Your task to perform on an android device: empty trash in google photos Image 0: 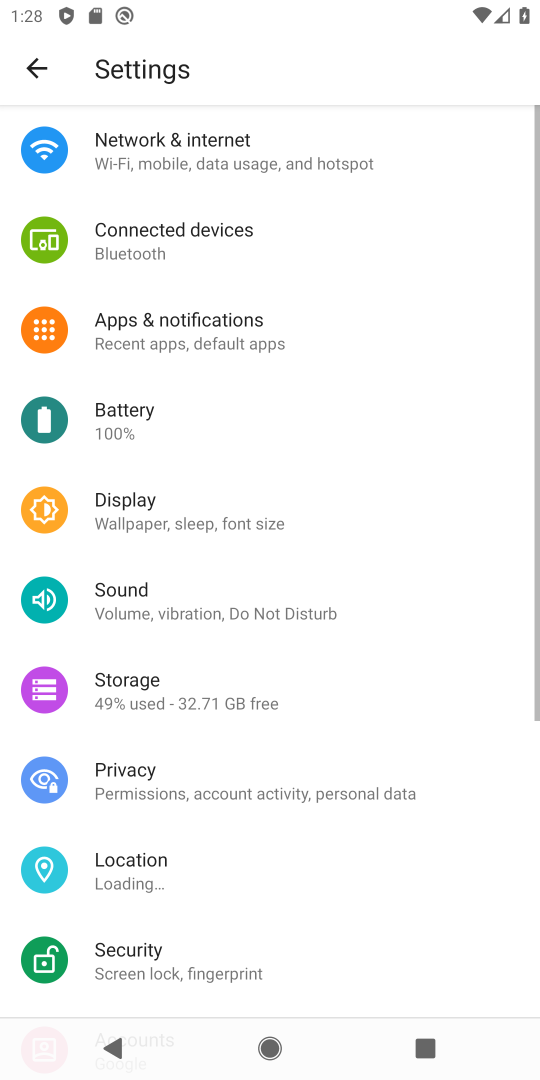
Step 0: press home button
Your task to perform on an android device: empty trash in google photos Image 1: 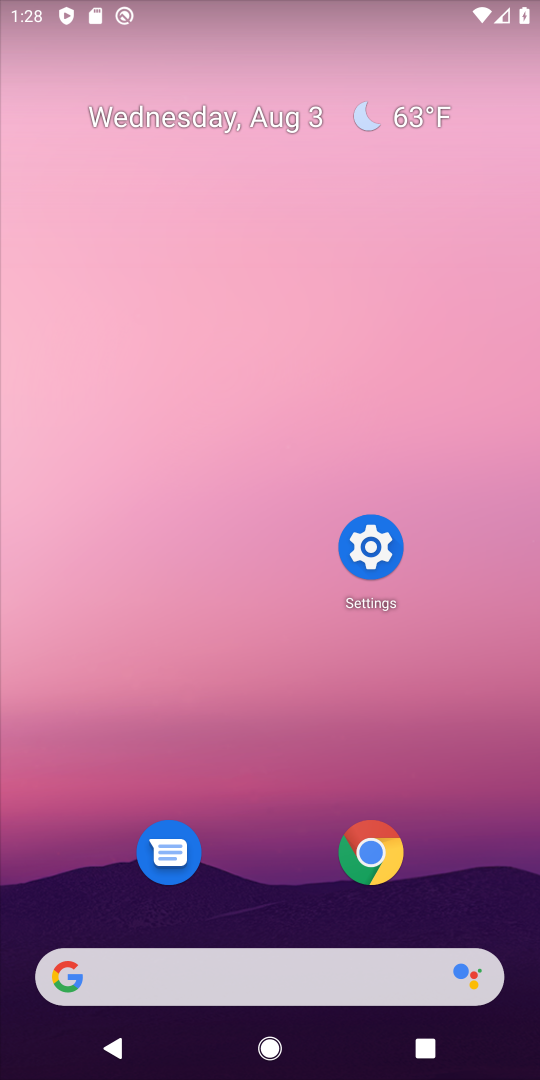
Step 1: drag from (257, 951) to (428, 82)
Your task to perform on an android device: empty trash in google photos Image 2: 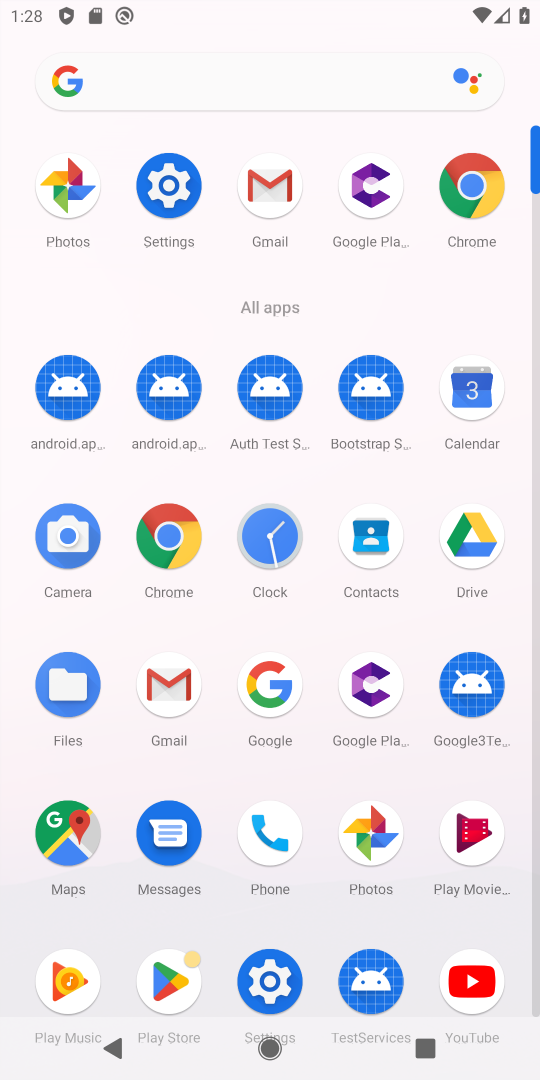
Step 2: click (377, 837)
Your task to perform on an android device: empty trash in google photos Image 3: 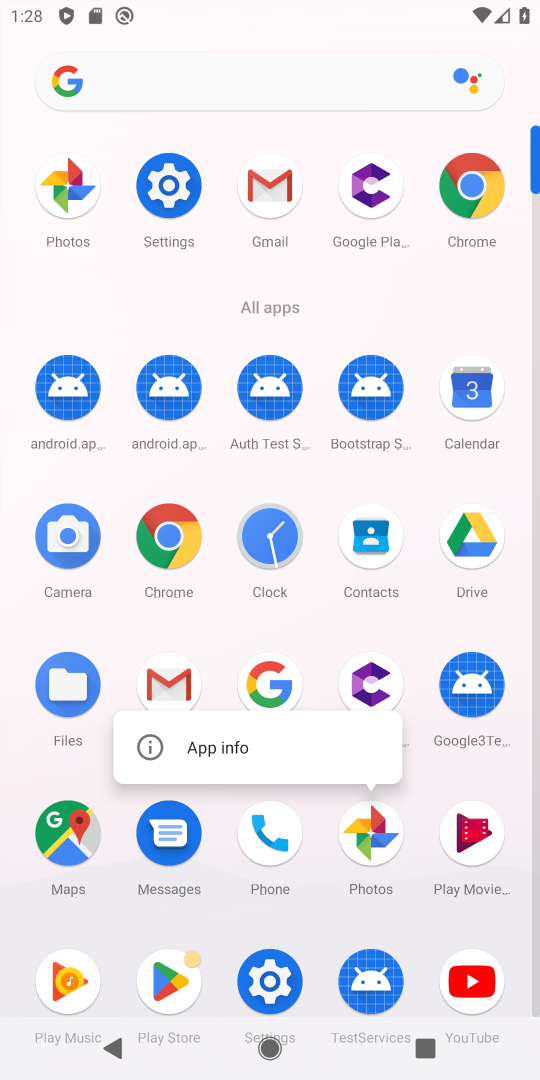
Step 3: click (377, 837)
Your task to perform on an android device: empty trash in google photos Image 4: 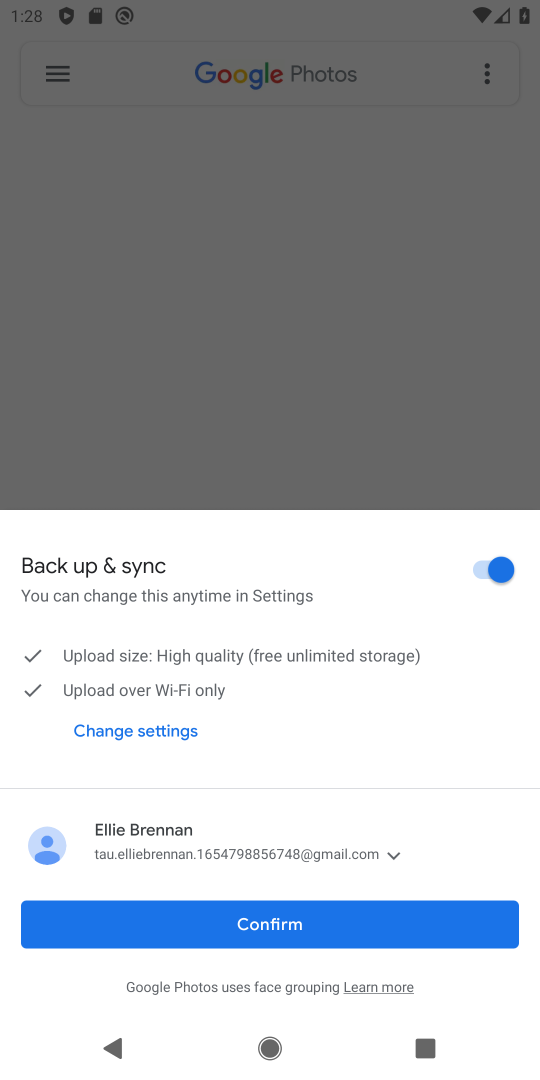
Step 4: click (264, 914)
Your task to perform on an android device: empty trash in google photos Image 5: 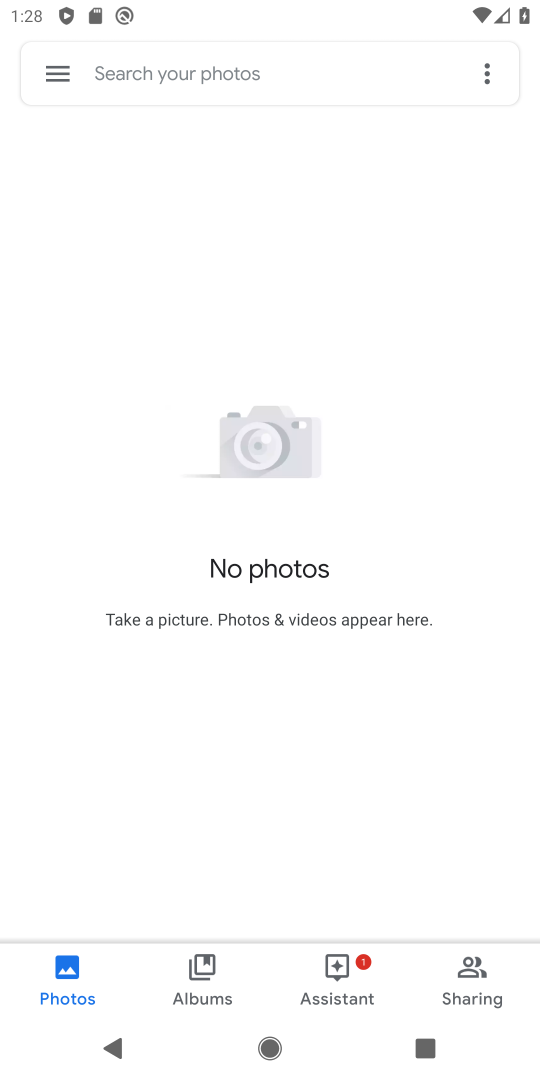
Step 5: click (63, 70)
Your task to perform on an android device: empty trash in google photos Image 6: 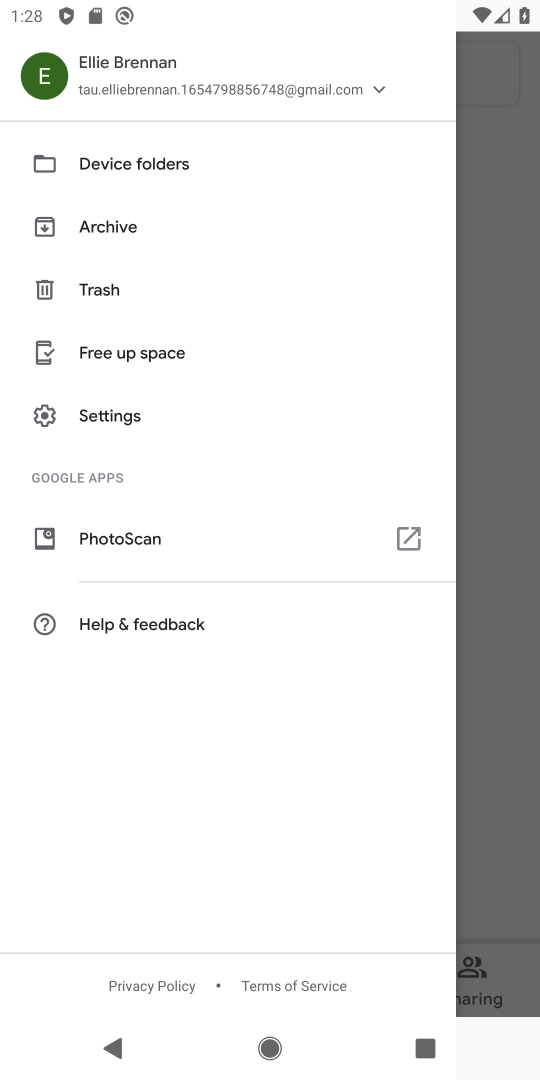
Step 6: click (88, 288)
Your task to perform on an android device: empty trash in google photos Image 7: 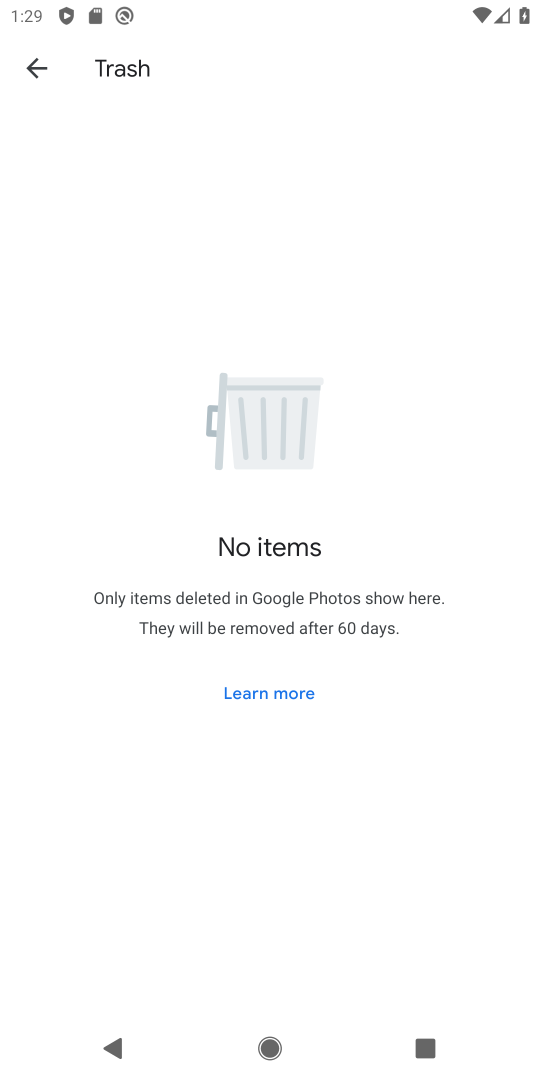
Step 7: task complete